Your task to perform on an android device: What's the weather? Image 0: 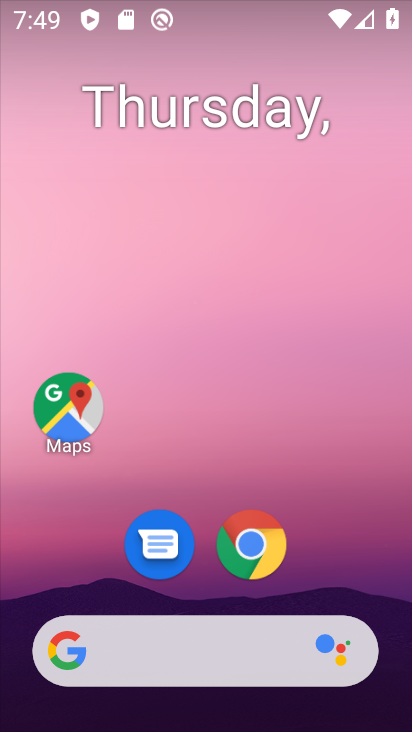
Step 0: drag from (212, 519) to (215, 186)
Your task to perform on an android device: What's the weather? Image 1: 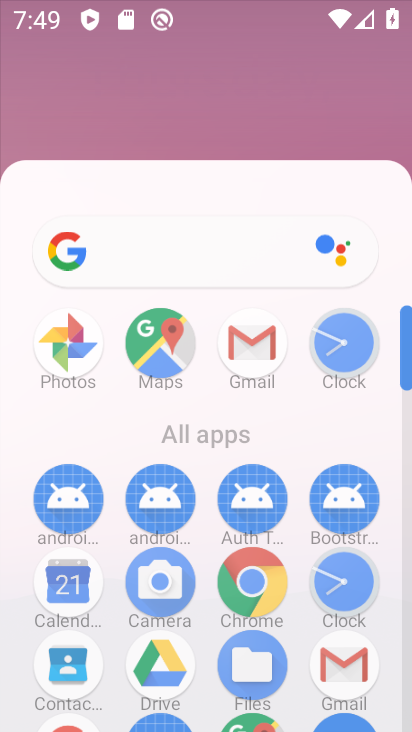
Step 1: drag from (239, 227) to (234, 73)
Your task to perform on an android device: What's the weather? Image 2: 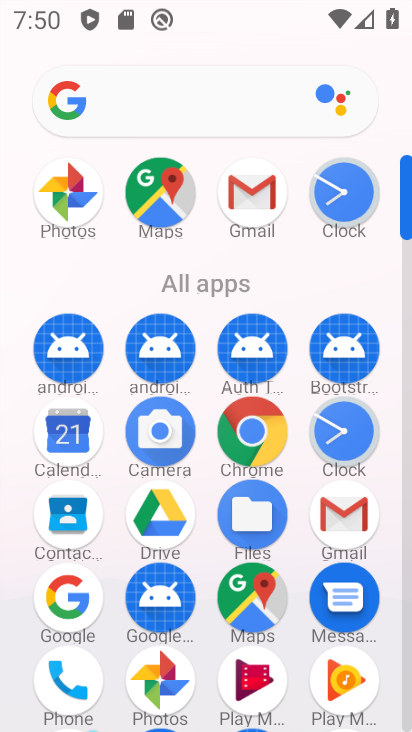
Step 2: press home button
Your task to perform on an android device: What's the weather? Image 3: 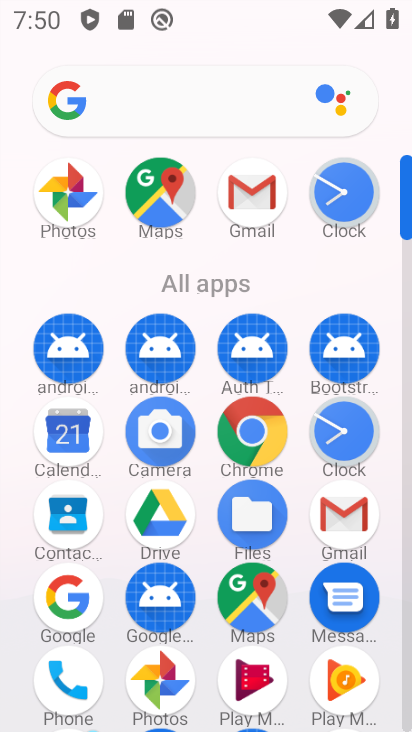
Step 3: press home button
Your task to perform on an android device: What's the weather? Image 4: 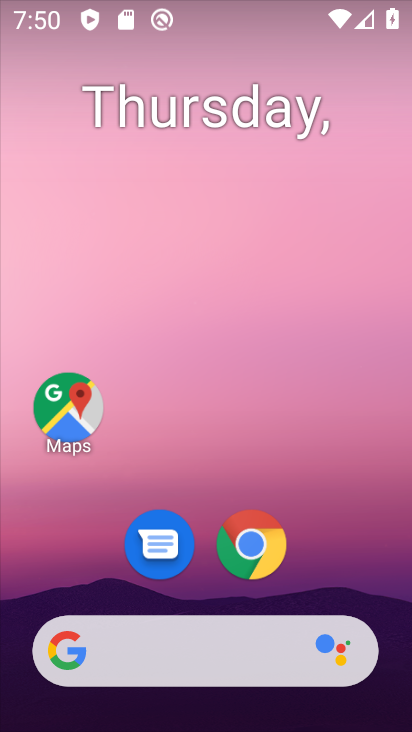
Step 4: press home button
Your task to perform on an android device: What's the weather? Image 5: 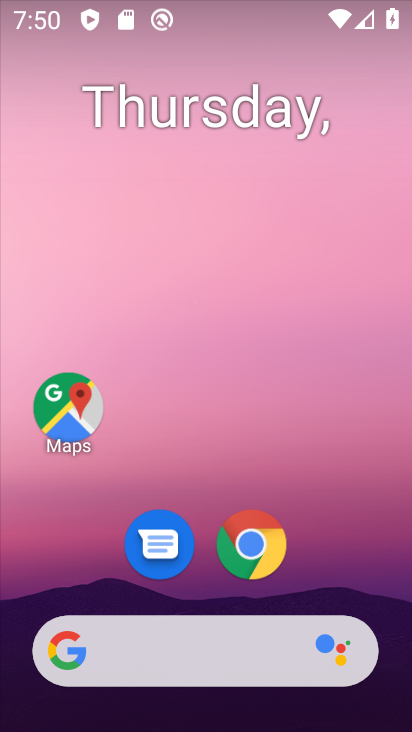
Step 5: drag from (268, 643) to (268, 182)
Your task to perform on an android device: What's the weather? Image 6: 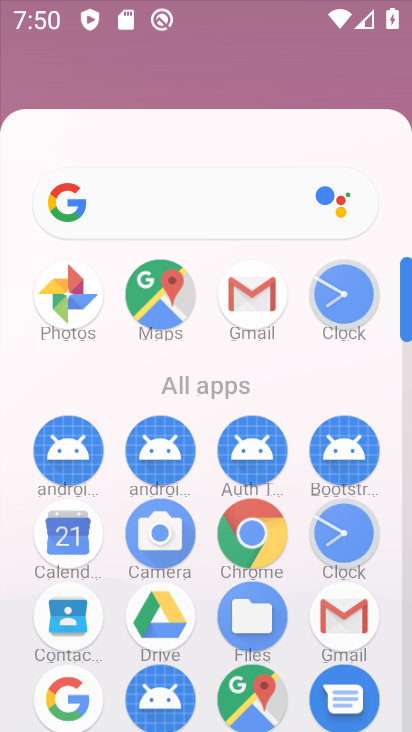
Step 6: drag from (236, 652) to (171, 257)
Your task to perform on an android device: What's the weather? Image 7: 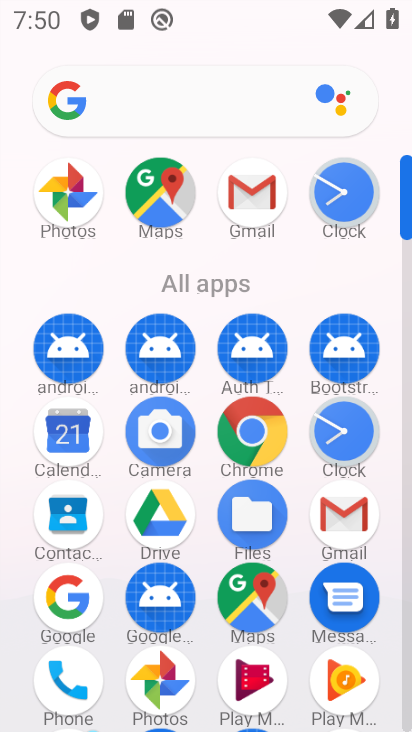
Step 7: press home button
Your task to perform on an android device: What's the weather? Image 8: 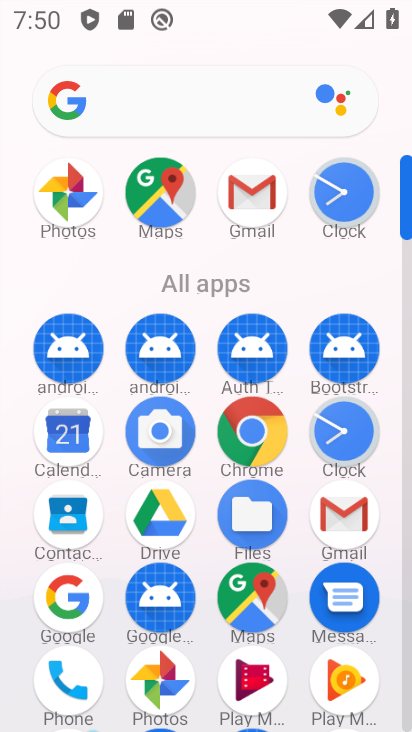
Step 8: press home button
Your task to perform on an android device: What's the weather? Image 9: 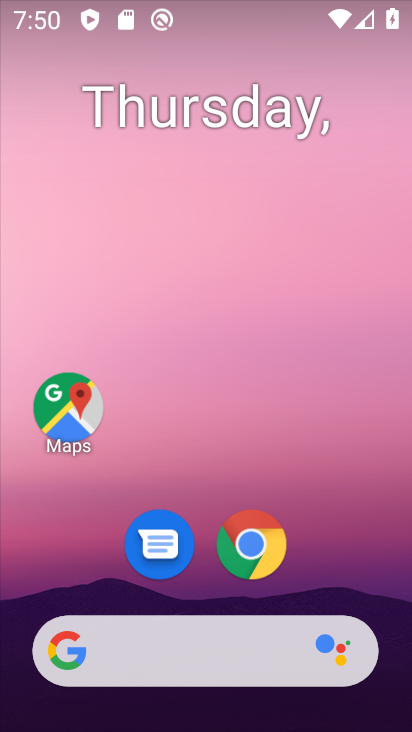
Step 9: press home button
Your task to perform on an android device: What's the weather? Image 10: 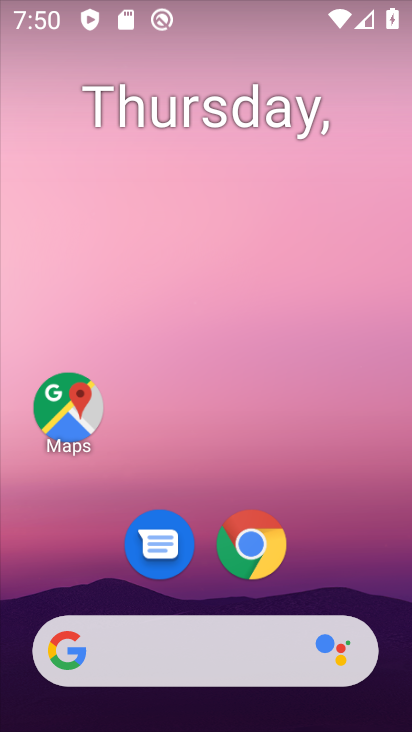
Step 10: drag from (10, 235) to (405, 592)
Your task to perform on an android device: What's the weather? Image 11: 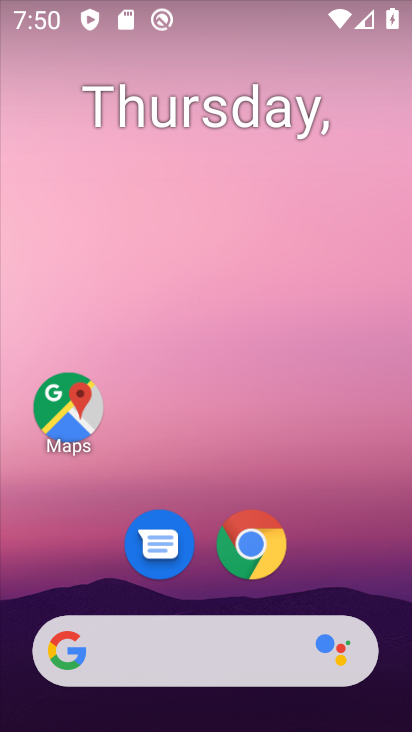
Step 11: drag from (12, 275) to (356, 482)
Your task to perform on an android device: What's the weather? Image 12: 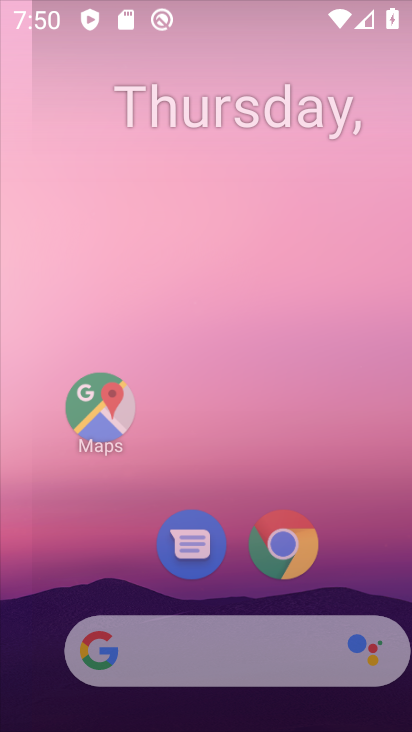
Step 12: drag from (43, 237) to (377, 432)
Your task to perform on an android device: What's the weather? Image 13: 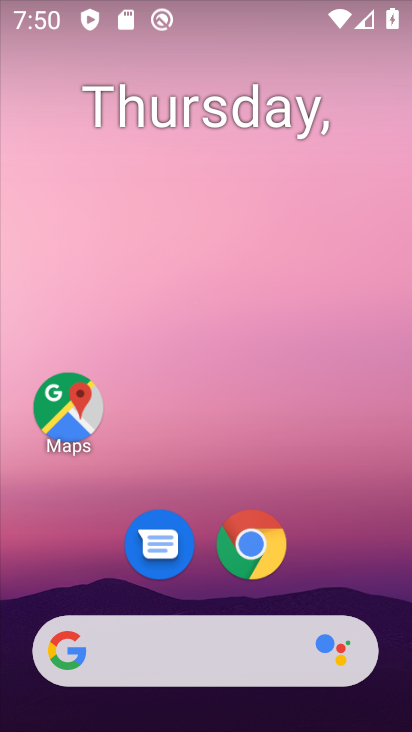
Step 13: drag from (45, 258) to (330, 407)
Your task to perform on an android device: What's the weather? Image 14: 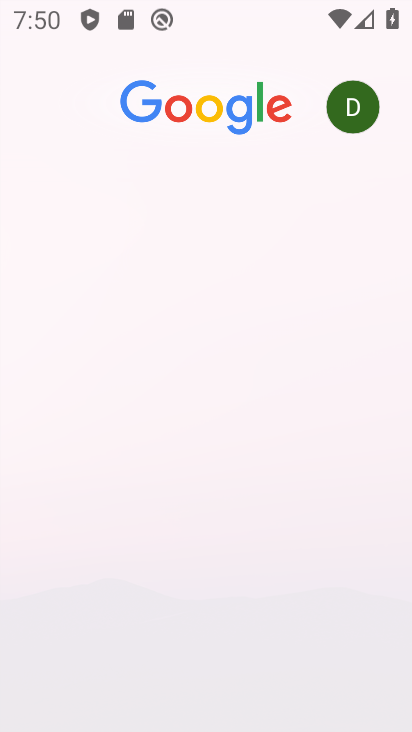
Step 14: click (365, 325)
Your task to perform on an android device: What's the weather? Image 15: 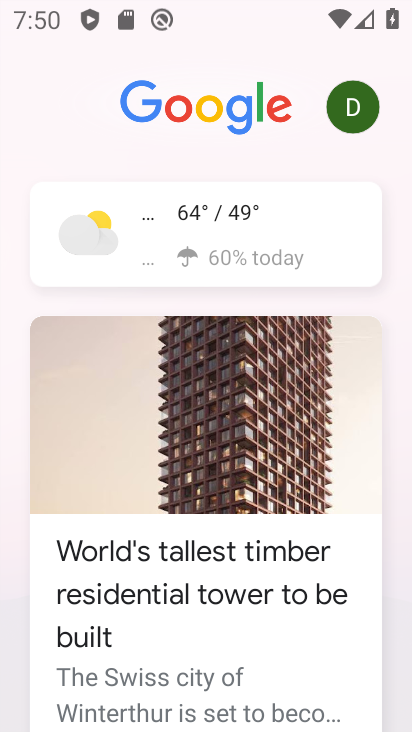
Step 15: click (221, 220)
Your task to perform on an android device: What's the weather? Image 16: 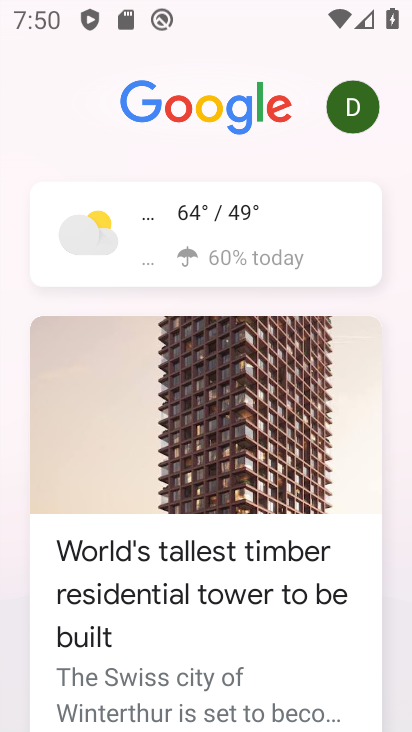
Step 16: click (221, 220)
Your task to perform on an android device: What's the weather? Image 17: 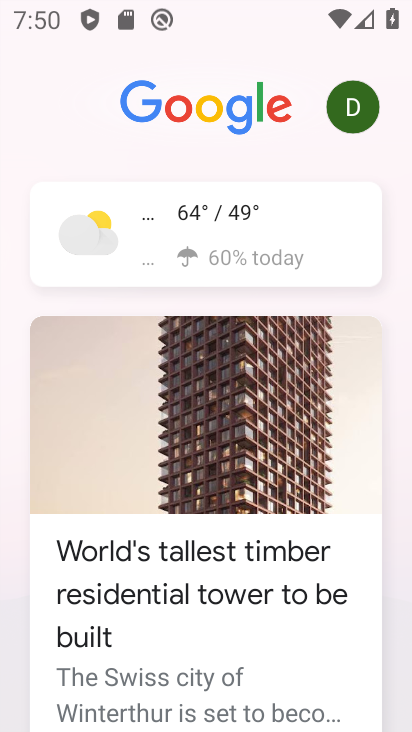
Step 17: click (206, 222)
Your task to perform on an android device: What's the weather? Image 18: 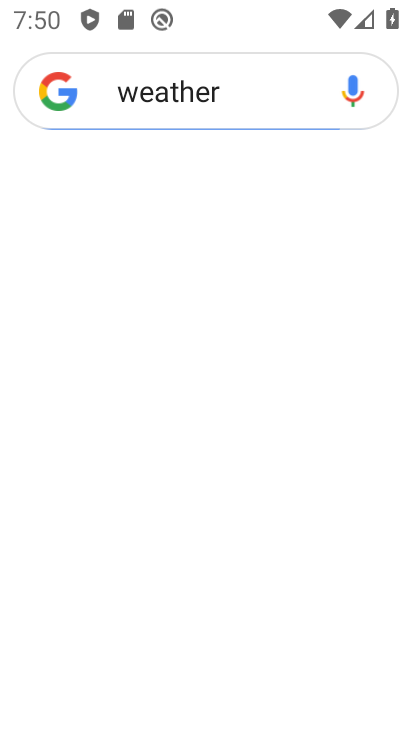
Step 18: click (203, 226)
Your task to perform on an android device: What's the weather? Image 19: 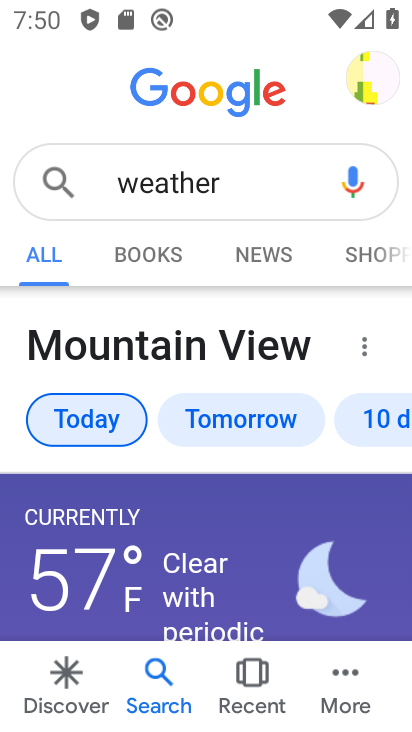
Step 19: task complete